Your task to perform on an android device: turn off wifi Image 0: 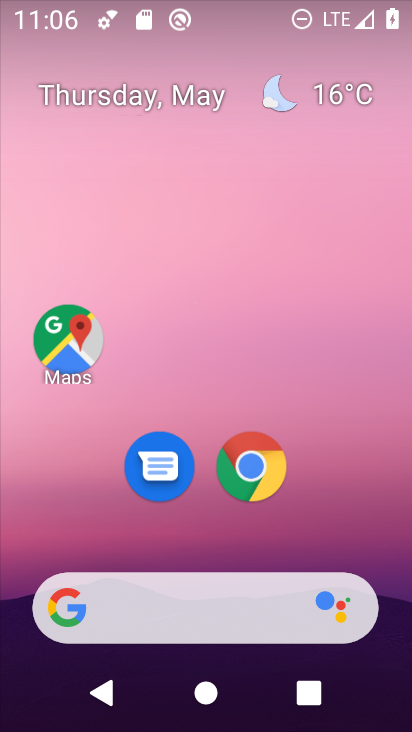
Step 0: drag from (323, 531) to (337, 274)
Your task to perform on an android device: turn off wifi Image 1: 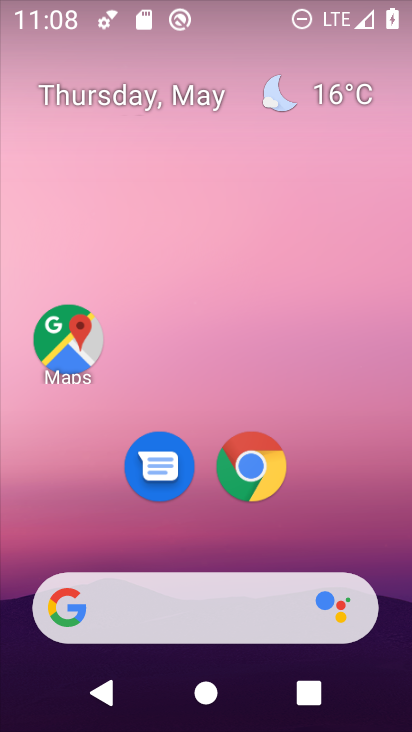
Step 1: drag from (275, 518) to (320, 227)
Your task to perform on an android device: turn off wifi Image 2: 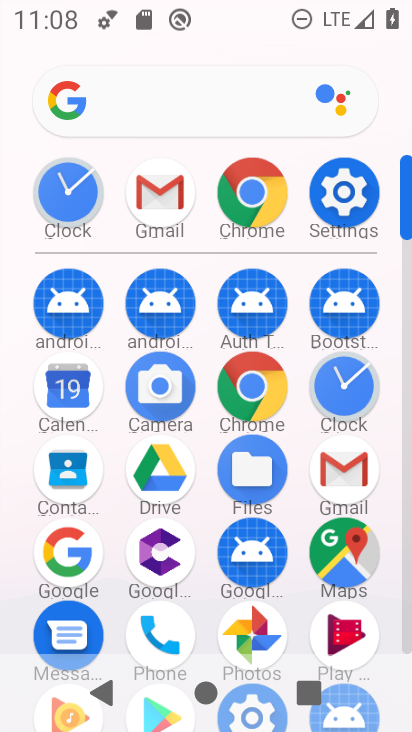
Step 2: click (345, 183)
Your task to perform on an android device: turn off wifi Image 3: 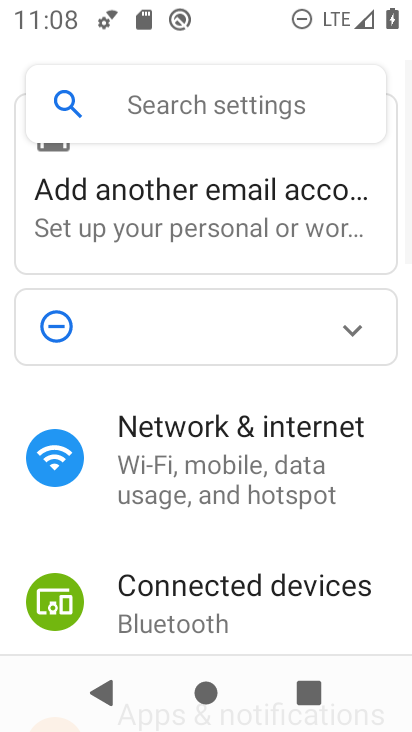
Step 3: click (203, 464)
Your task to perform on an android device: turn off wifi Image 4: 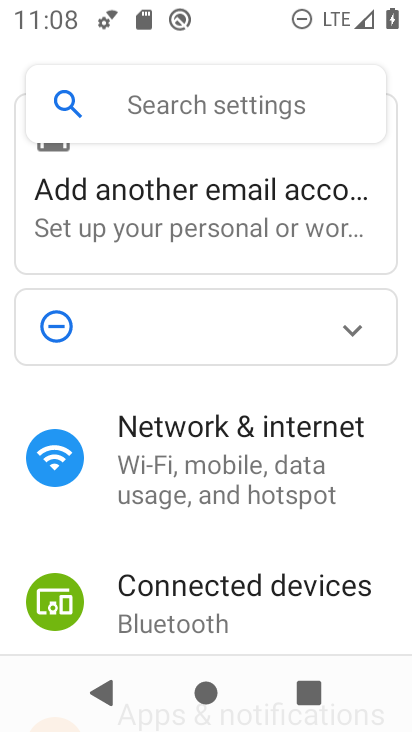
Step 4: task complete